Your task to perform on an android device: Open Maps and search for coffee Image 0: 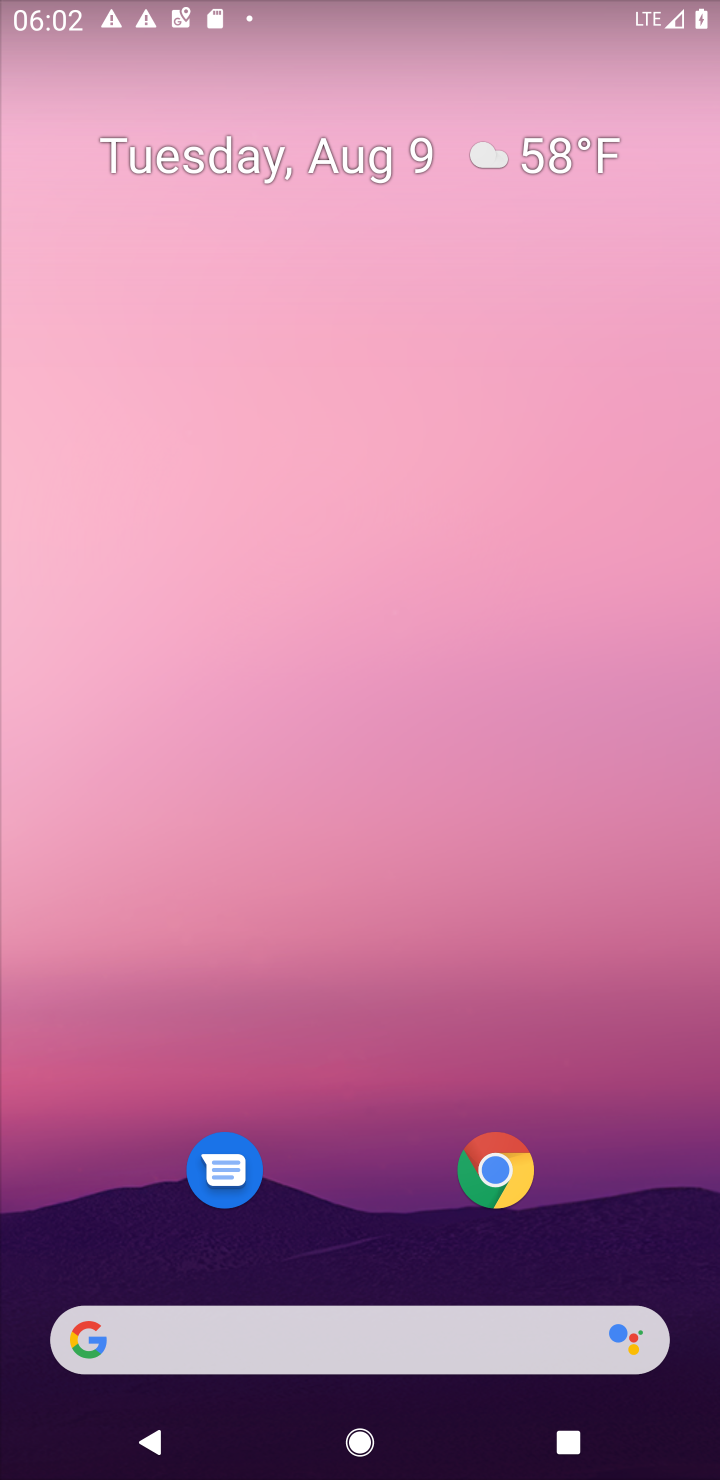
Step 0: press home button
Your task to perform on an android device: Open Maps and search for coffee Image 1: 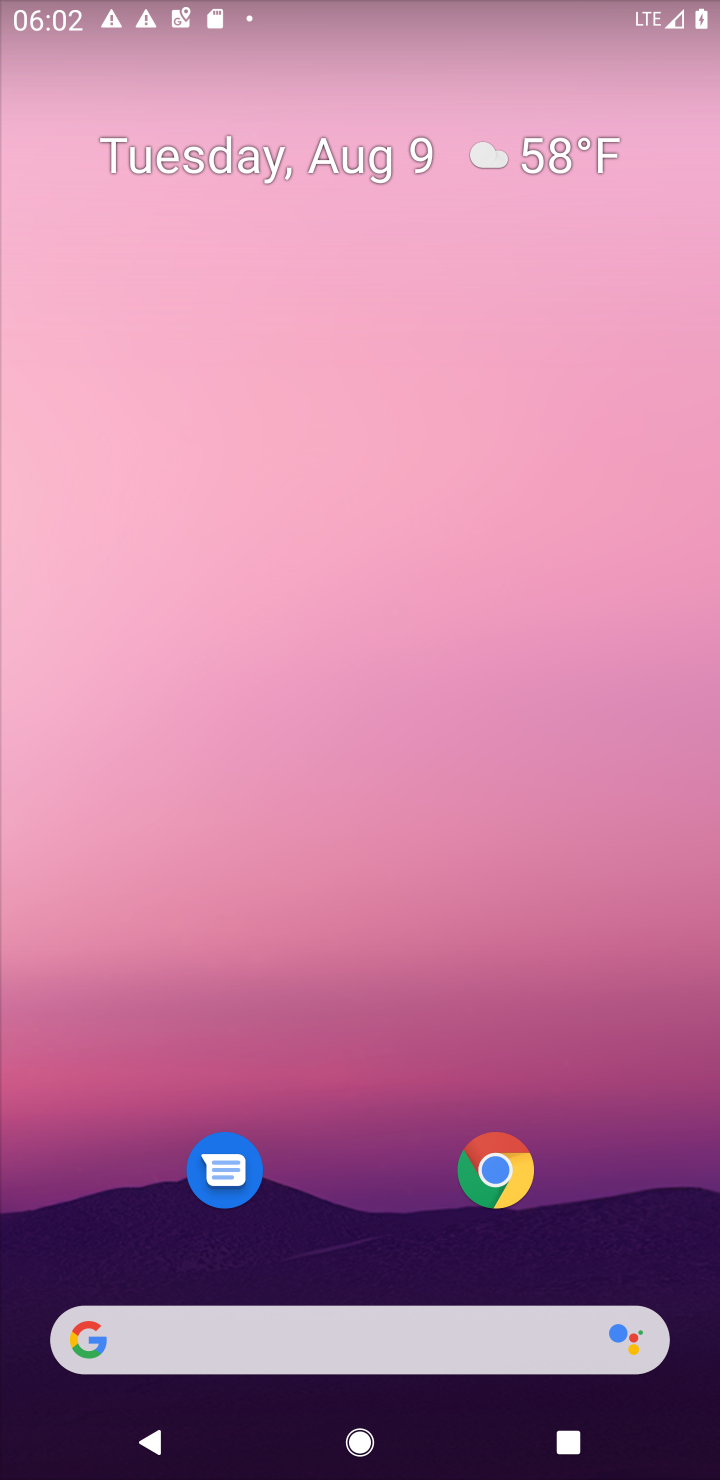
Step 1: drag from (436, 668) to (568, 2)
Your task to perform on an android device: Open Maps and search for coffee Image 2: 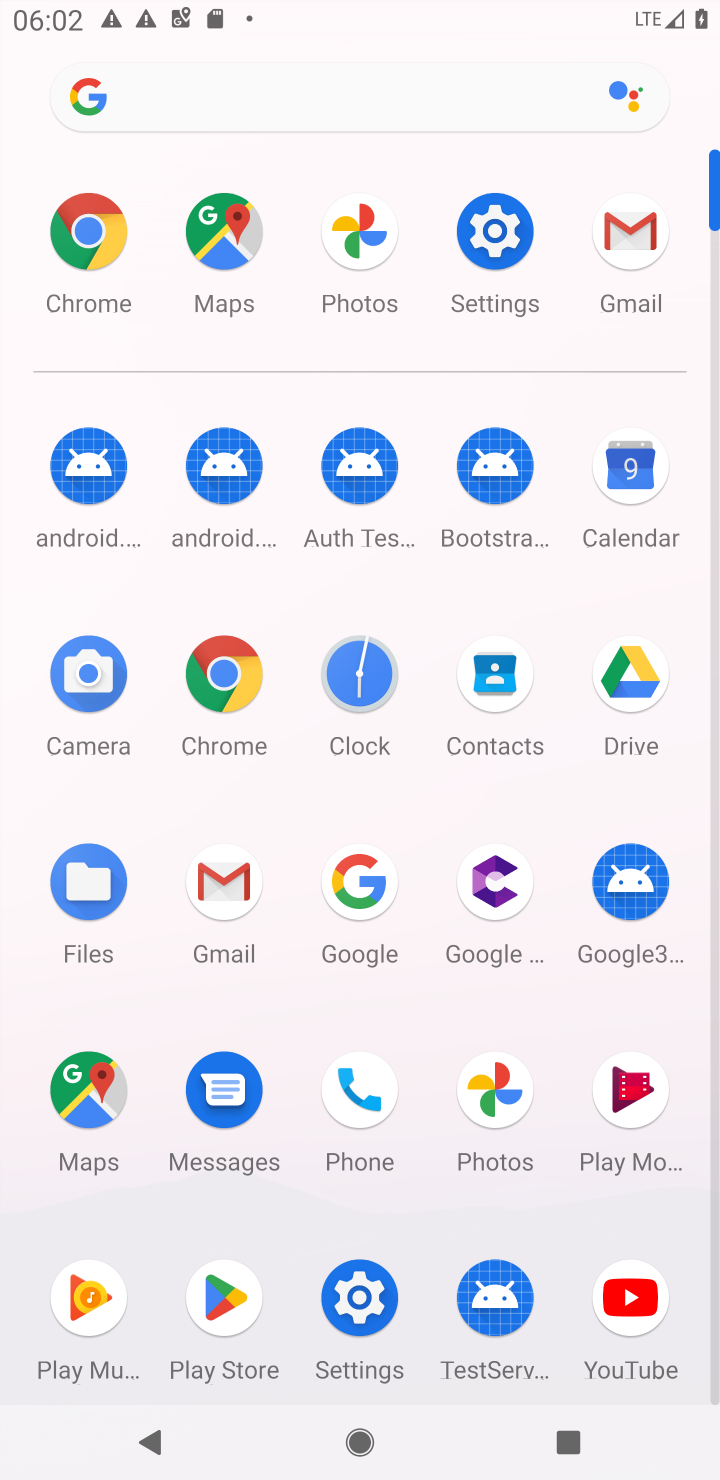
Step 2: click (77, 1092)
Your task to perform on an android device: Open Maps and search for coffee Image 3: 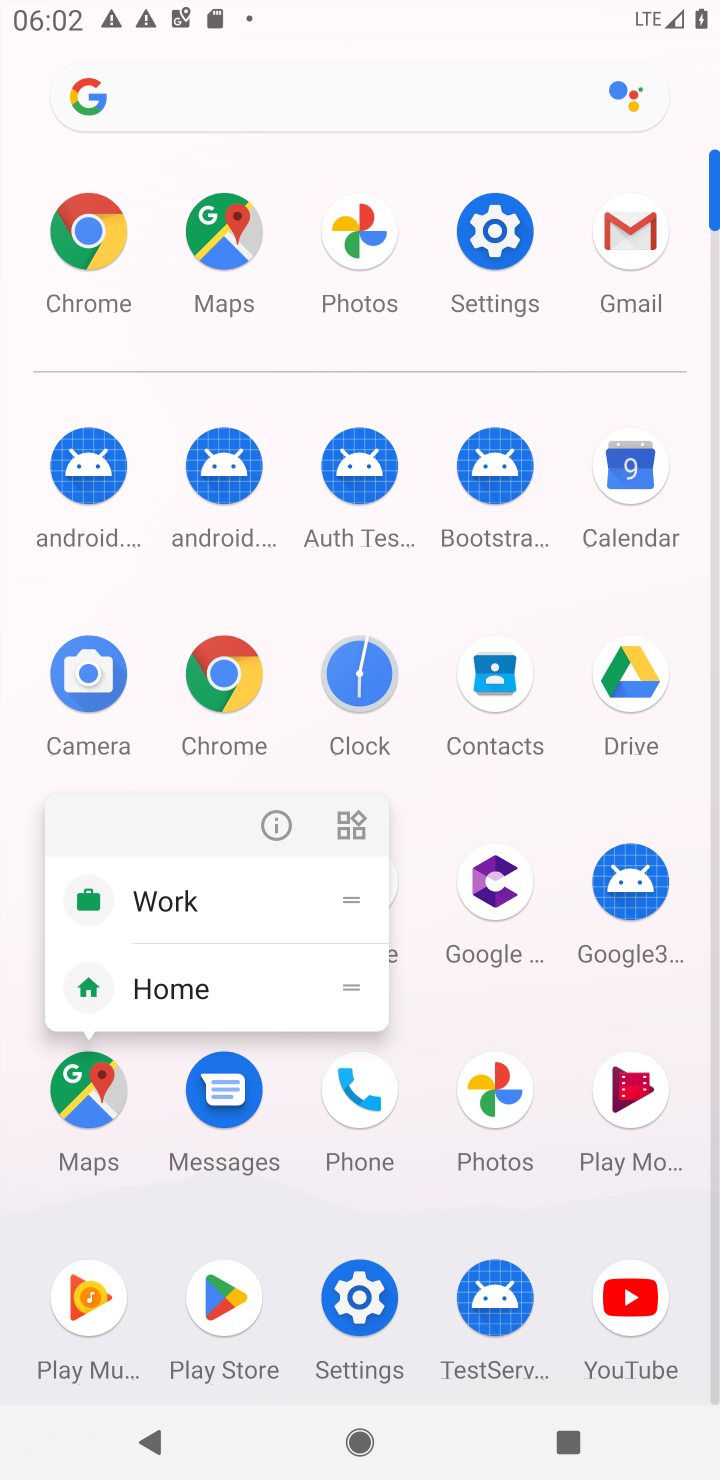
Step 3: click (77, 1092)
Your task to perform on an android device: Open Maps and search for coffee Image 4: 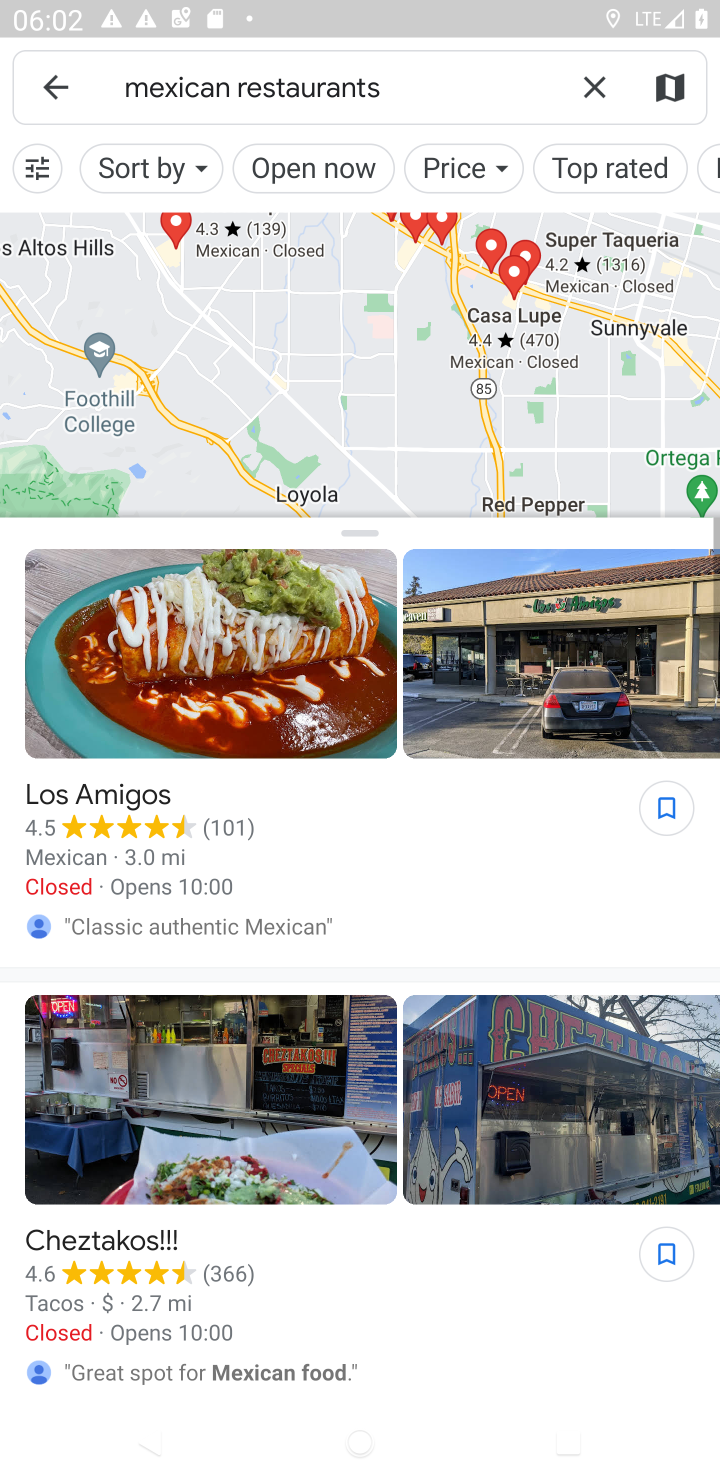
Step 4: click (594, 101)
Your task to perform on an android device: Open Maps and search for coffee Image 5: 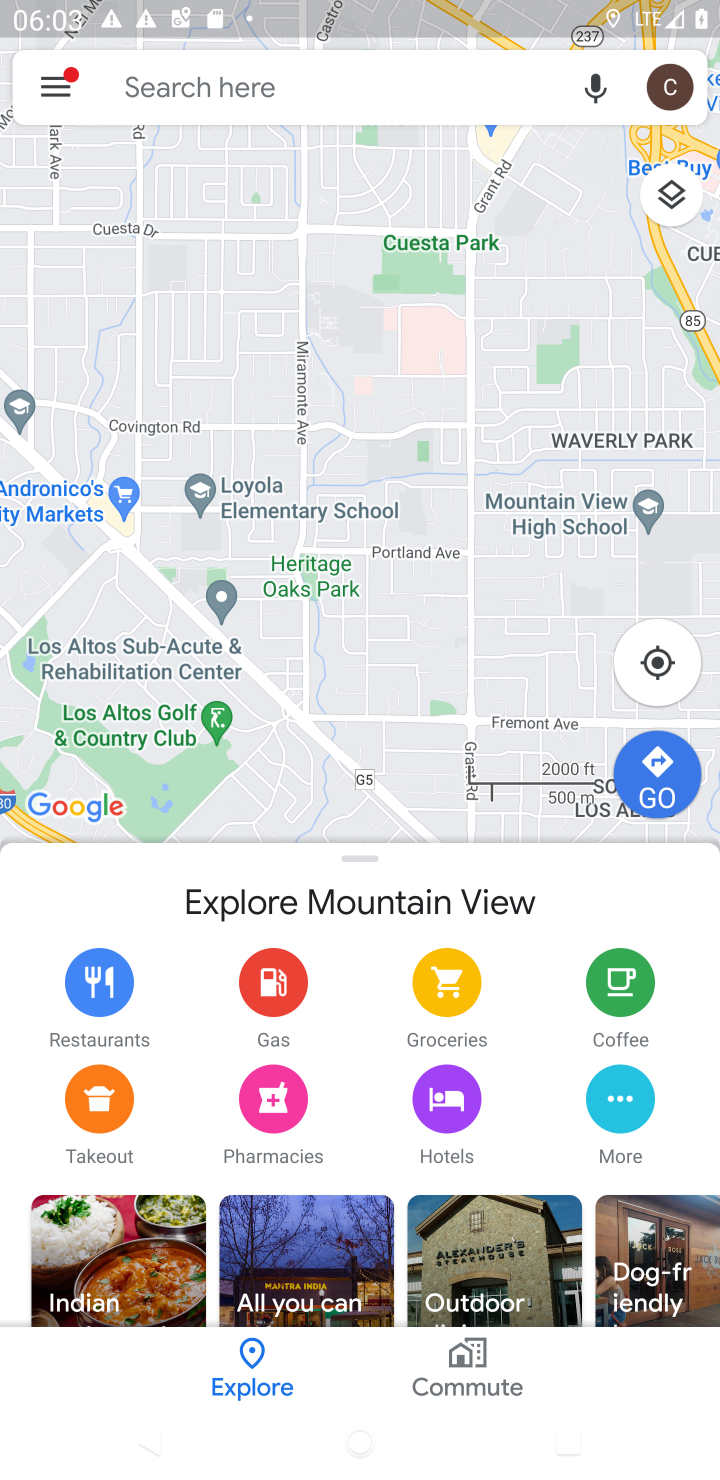
Step 5: click (203, 90)
Your task to perform on an android device: Open Maps and search for coffee Image 6: 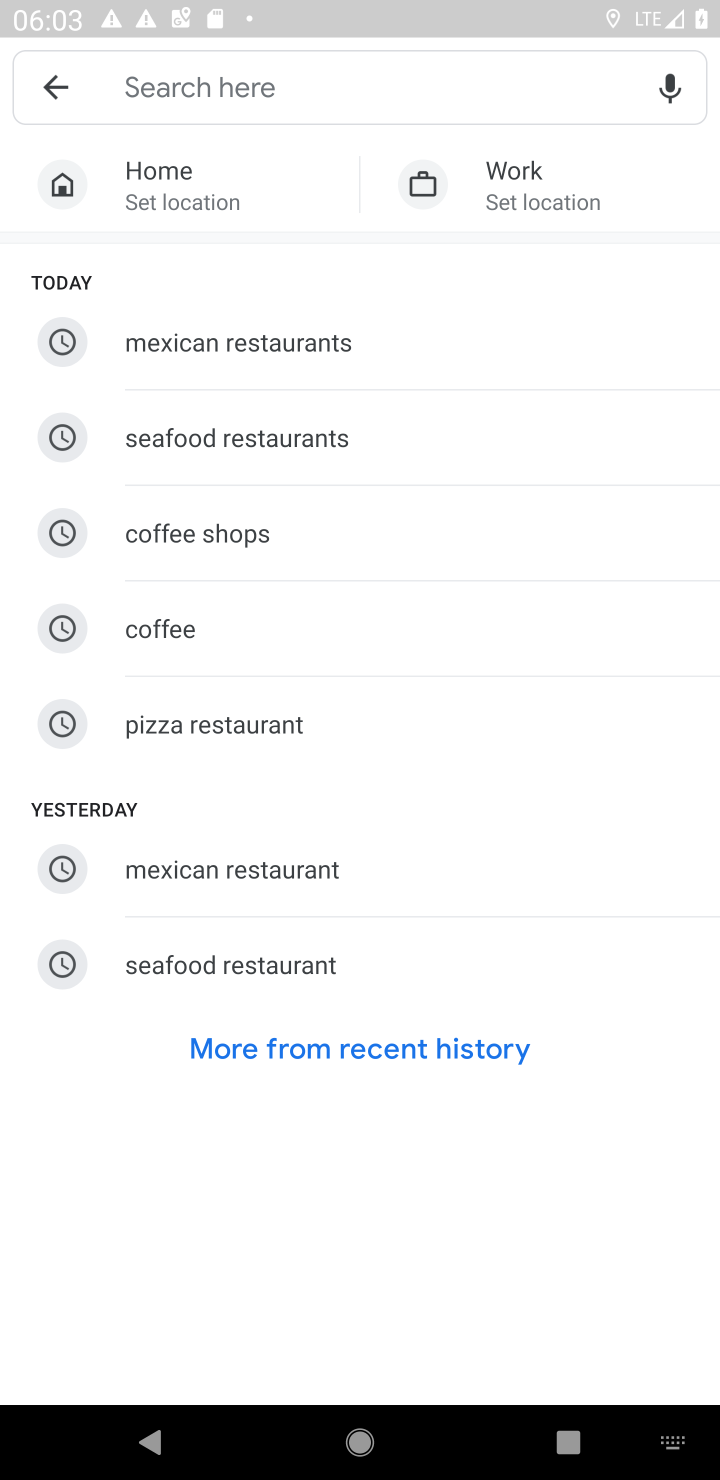
Step 6: click (336, 1331)
Your task to perform on an android device: Open Maps and search for coffee Image 7: 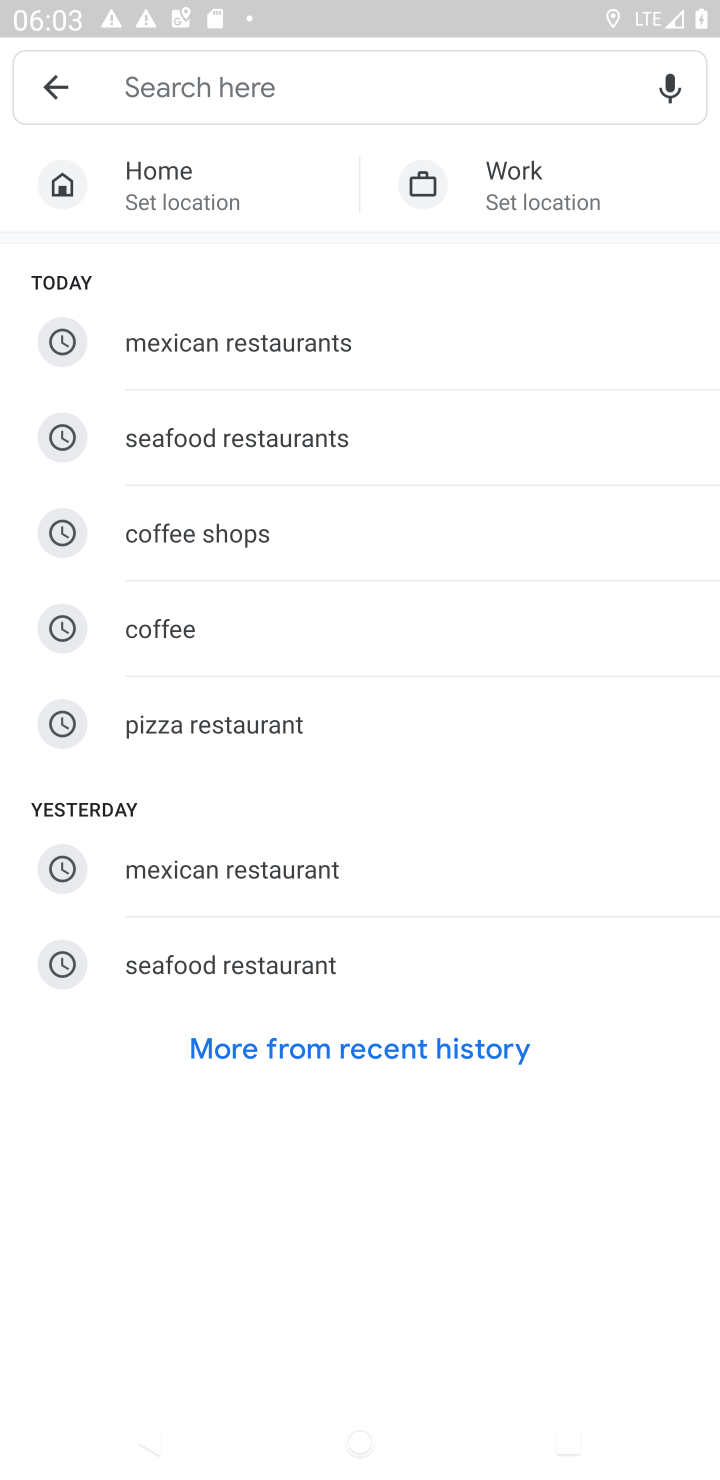
Step 7: click (174, 632)
Your task to perform on an android device: Open Maps and search for coffee Image 8: 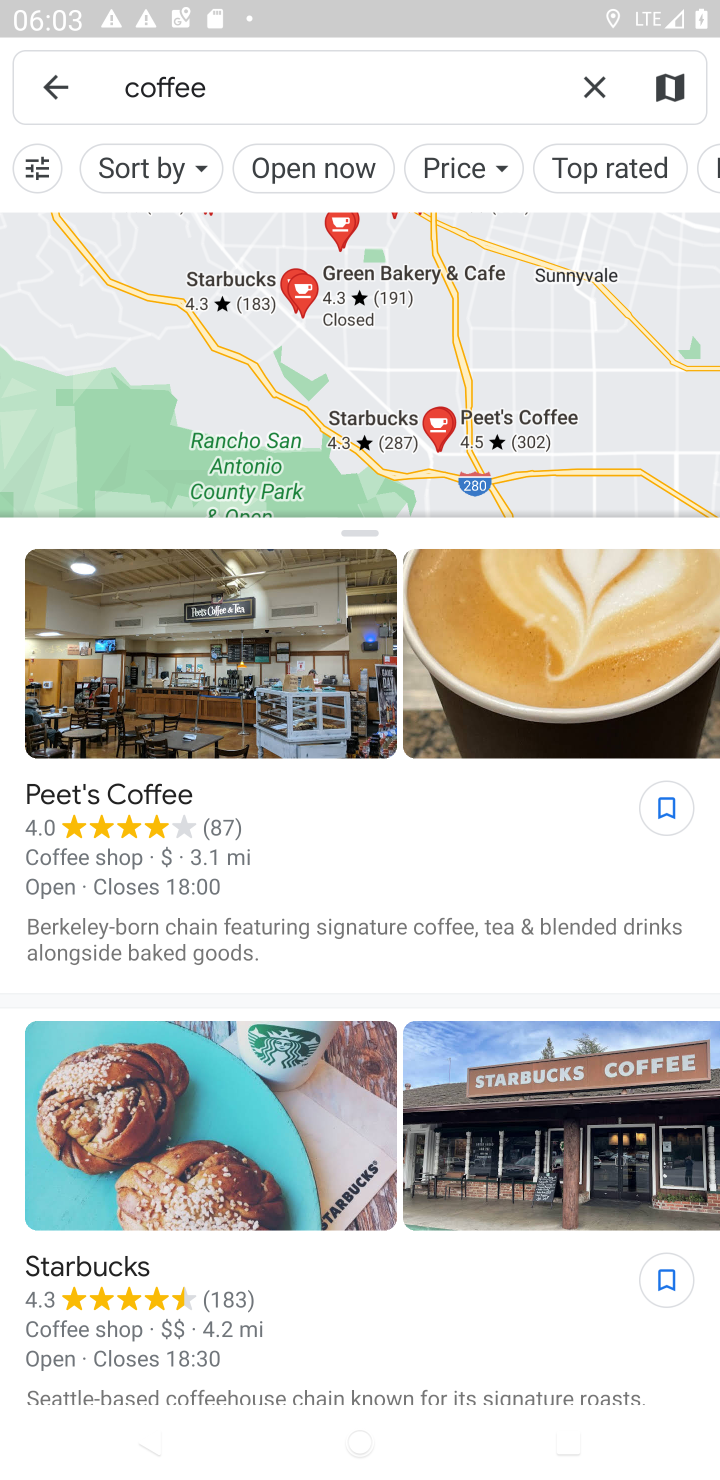
Step 8: task complete